Your task to perform on an android device: Check the news Image 0: 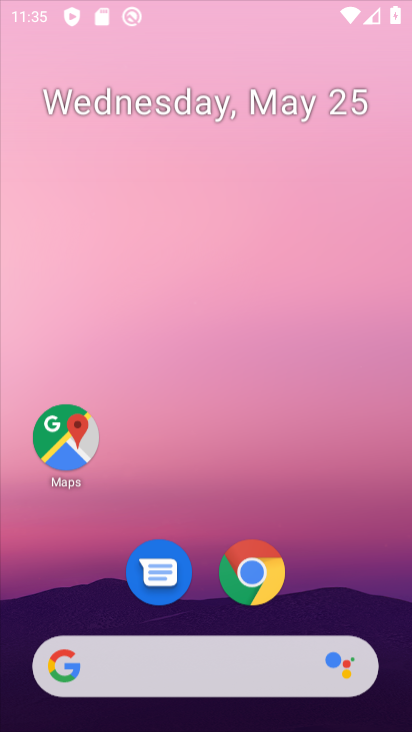
Step 0: click (247, 586)
Your task to perform on an android device: Check the news Image 1: 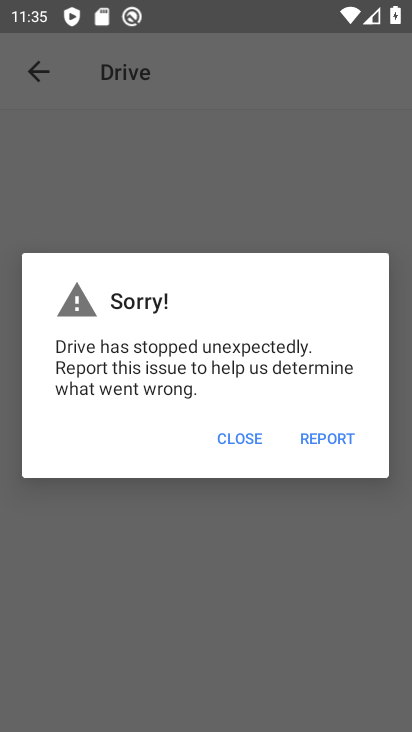
Step 1: press home button
Your task to perform on an android device: Check the news Image 2: 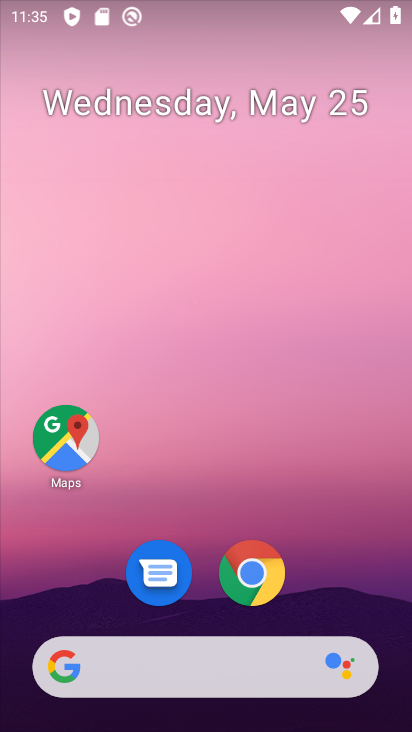
Step 2: click (364, 274)
Your task to perform on an android device: Check the news Image 3: 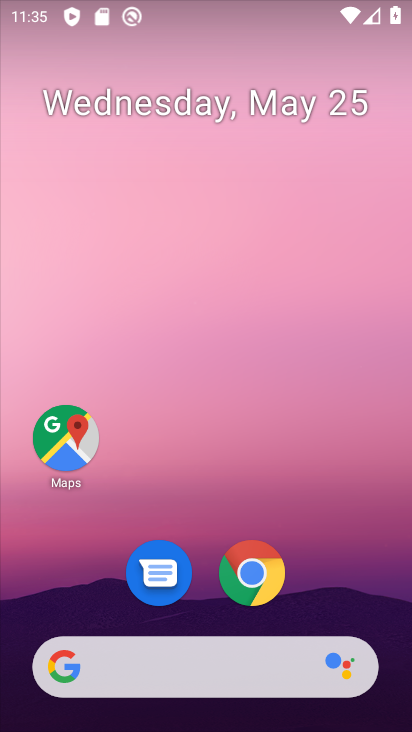
Step 3: task complete